Your task to perform on an android device: add a contact Image 0: 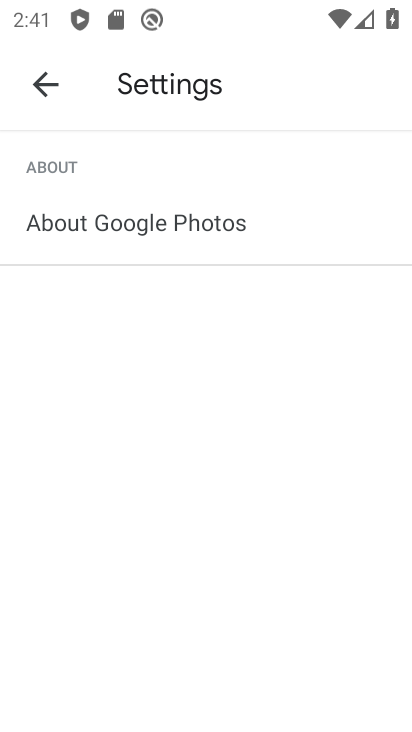
Step 0: press home button
Your task to perform on an android device: add a contact Image 1: 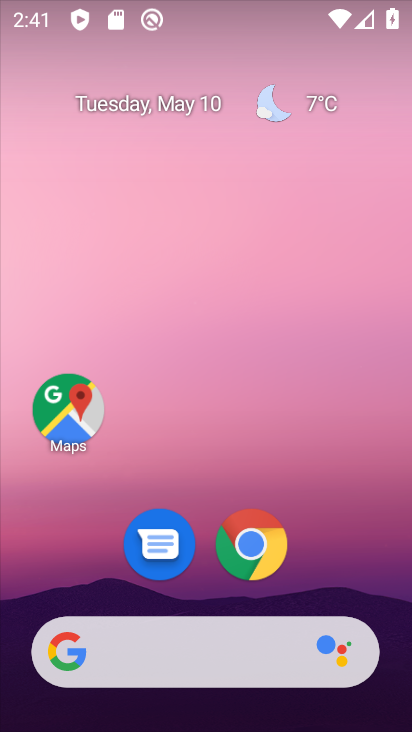
Step 1: drag from (362, 583) to (319, 258)
Your task to perform on an android device: add a contact Image 2: 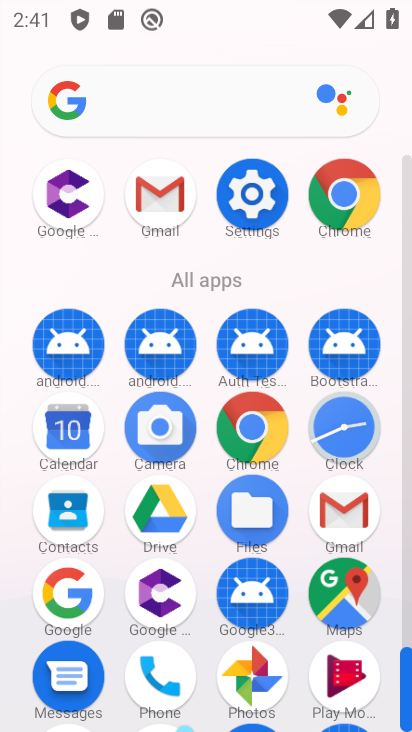
Step 2: drag from (208, 635) to (176, 313)
Your task to perform on an android device: add a contact Image 3: 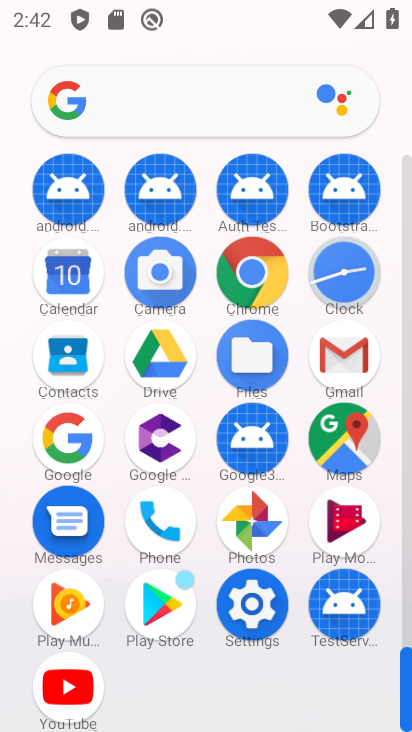
Step 3: click (76, 358)
Your task to perform on an android device: add a contact Image 4: 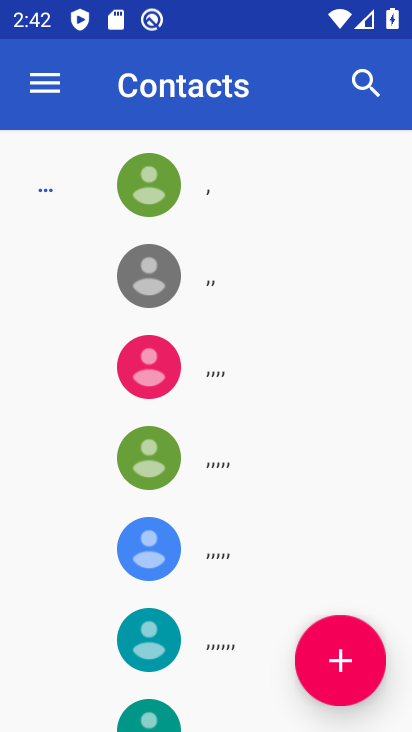
Step 4: click (350, 670)
Your task to perform on an android device: add a contact Image 5: 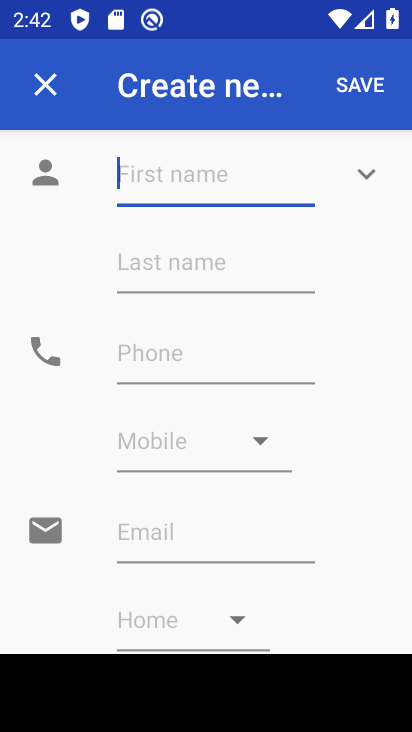
Step 5: type "dimaria"
Your task to perform on an android device: add a contact Image 6: 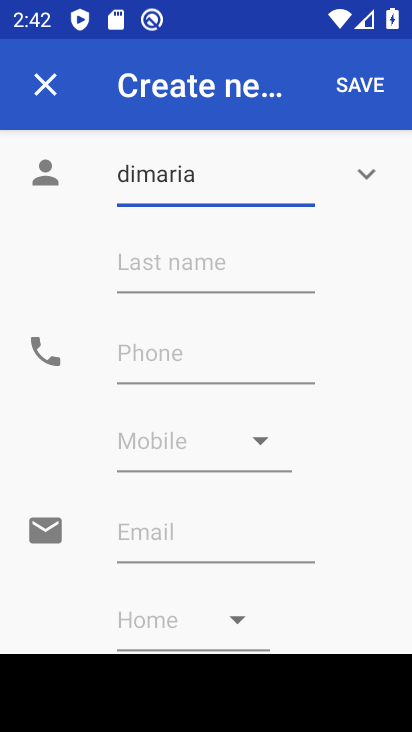
Step 6: click (237, 347)
Your task to perform on an android device: add a contact Image 7: 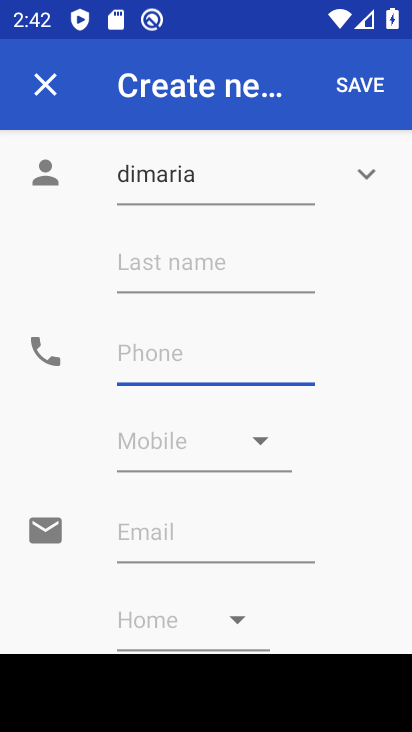
Step 7: type "89498932903"
Your task to perform on an android device: add a contact Image 8: 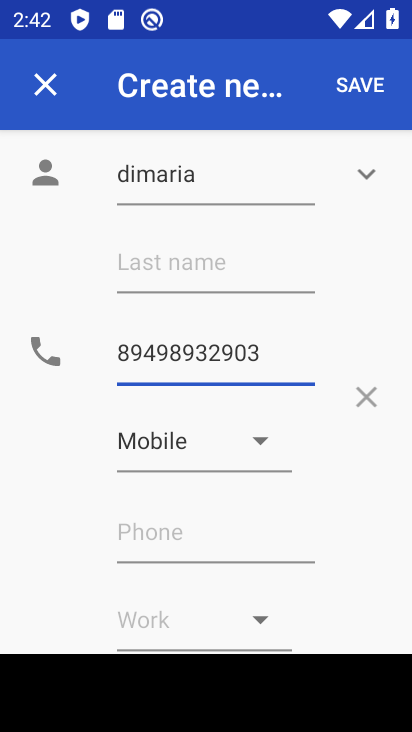
Step 8: click (364, 92)
Your task to perform on an android device: add a contact Image 9: 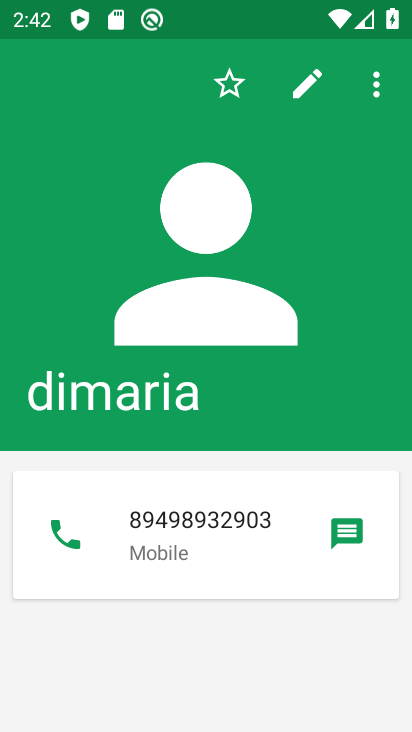
Step 9: task complete